Your task to perform on an android device: turn off wifi Image 0: 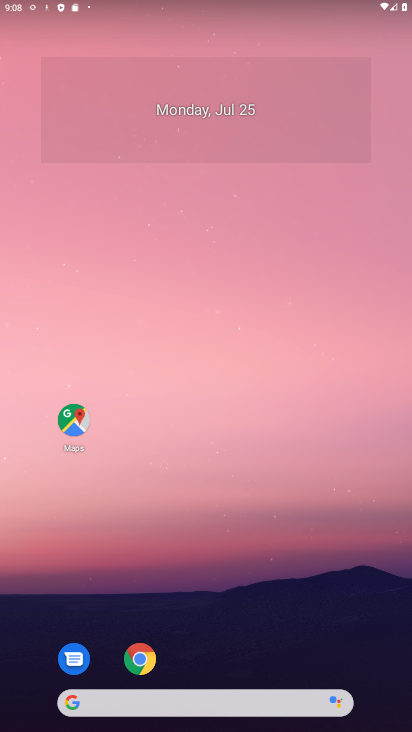
Step 0: drag from (199, 682) to (252, 8)
Your task to perform on an android device: turn off wifi Image 1: 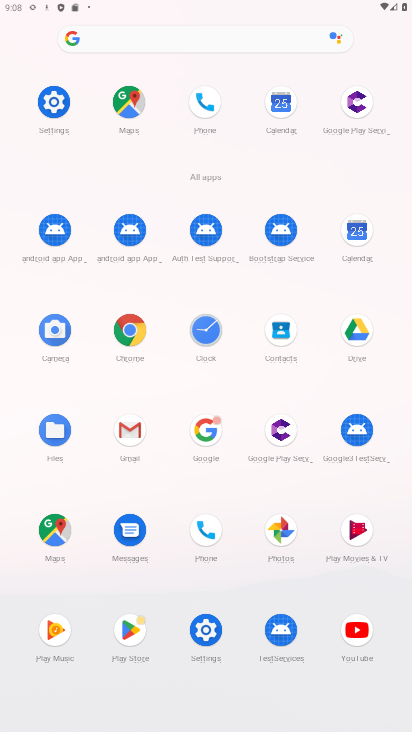
Step 1: click (191, 629)
Your task to perform on an android device: turn off wifi Image 2: 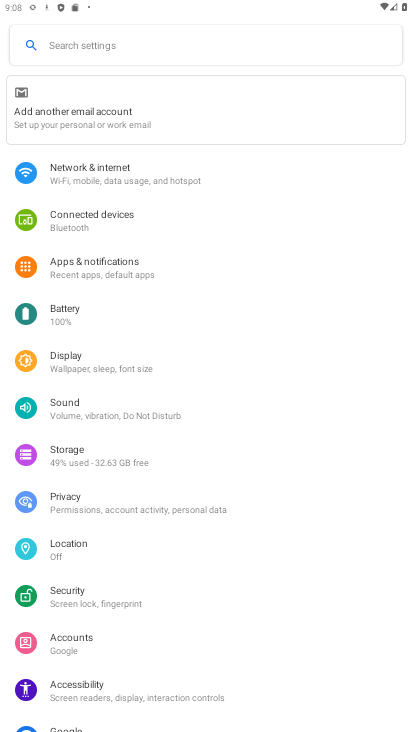
Step 2: click (131, 181)
Your task to perform on an android device: turn off wifi Image 3: 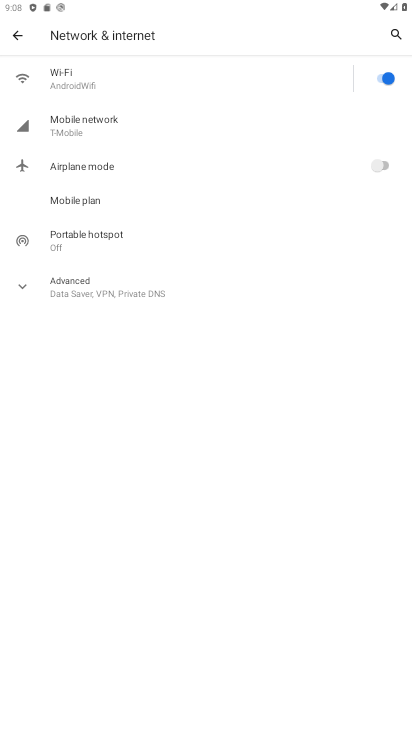
Step 3: click (364, 73)
Your task to perform on an android device: turn off wifi Image 4: 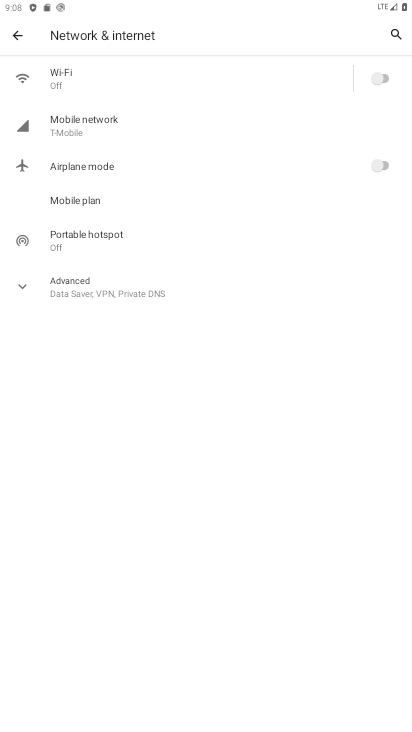
Step 4: task complete